Your task to perform on an android device: add a contact in the contacts app Image 0: 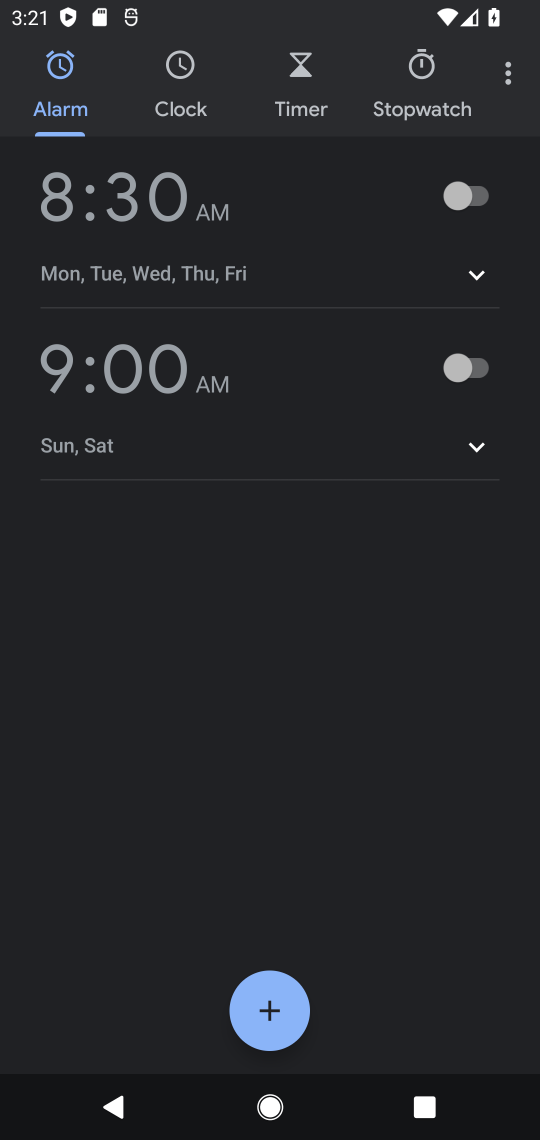
Step 0: press home button
Your task to perform on an android device: add a contact in the contacts app Image 1: 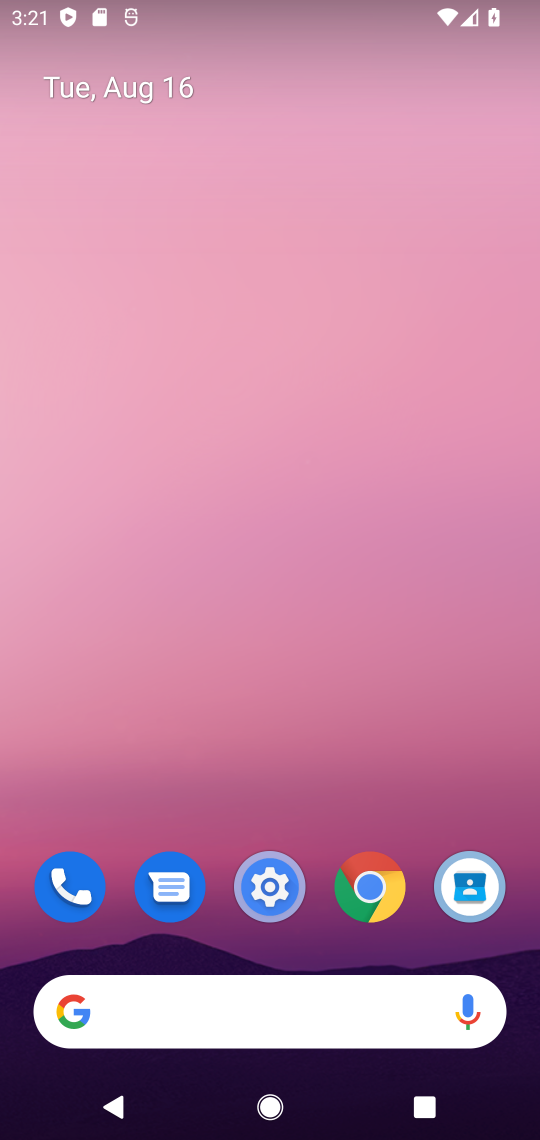
Step 1: drag from (307, 634) to (332, 63)
Your task to perform on an android device: add a contact in the contacts app Image 2: 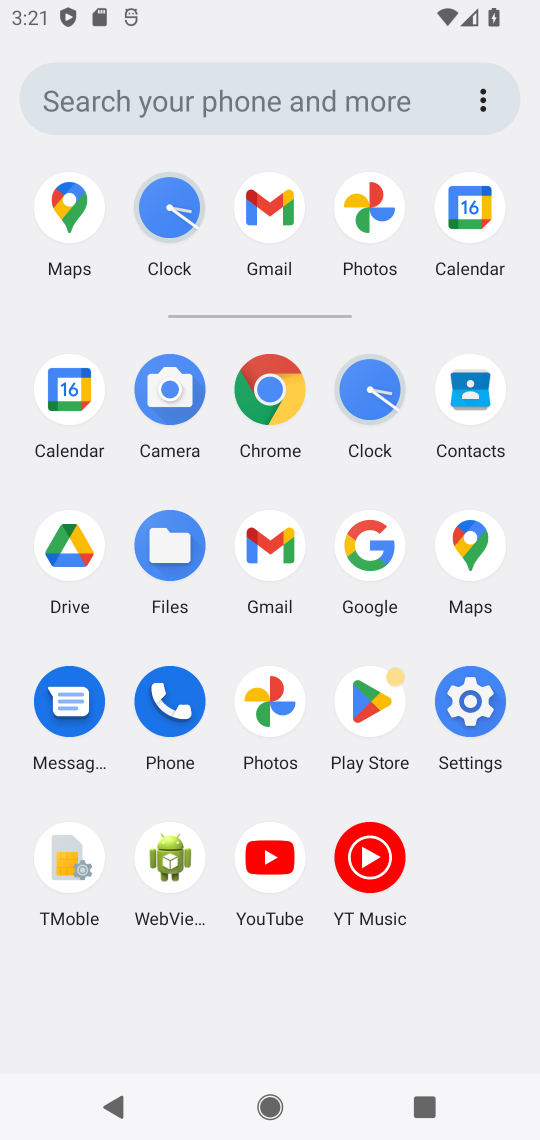
Step 2: click (441, 381)
Your task to perform on an android device: add a contact in the contacts app Image 3: 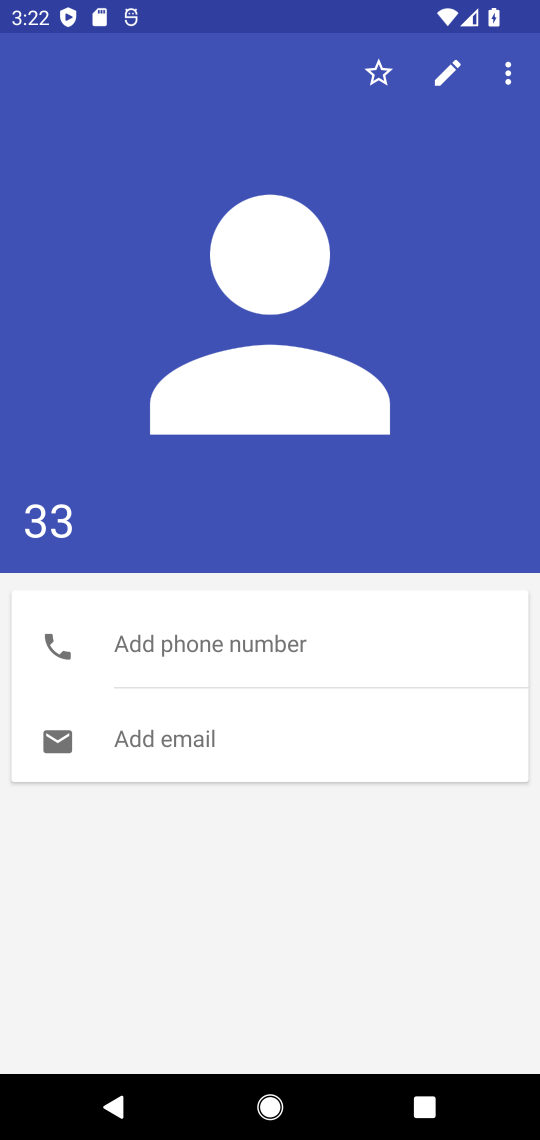
Step 3: task complete